Your task to perform on an android device: refresh tabs in the chrome app Image 0: 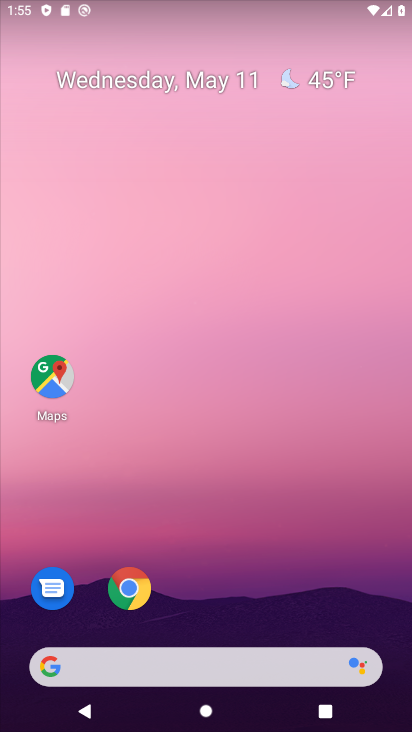
Step 0: click (116, 594)
Your task to perform on an android device: refresh tabs in the chrome app Image 1: 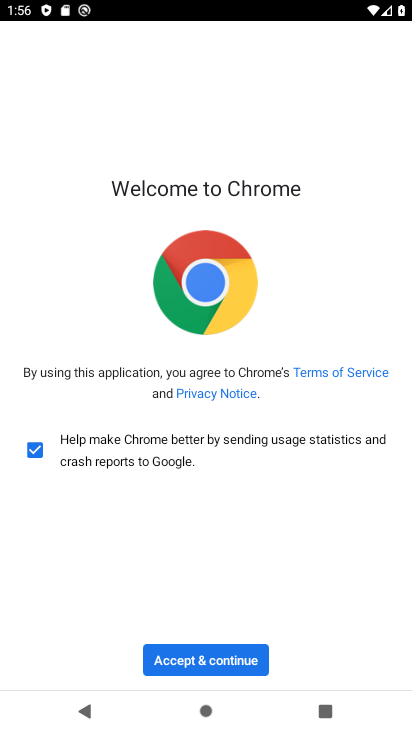
Step 1: click (233, 649)
Your task to perform on an android device: refresh tabs in the chrome app Image 2: 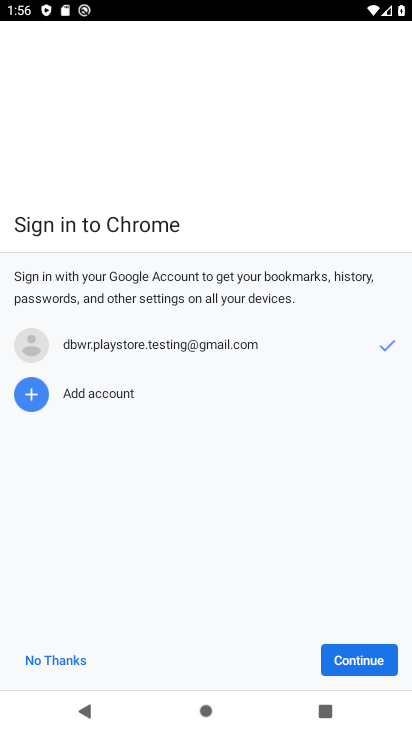
Step 2: click (344, 664)
Your task to perform on an android device: refresh tabs in the chrome app Image 3: 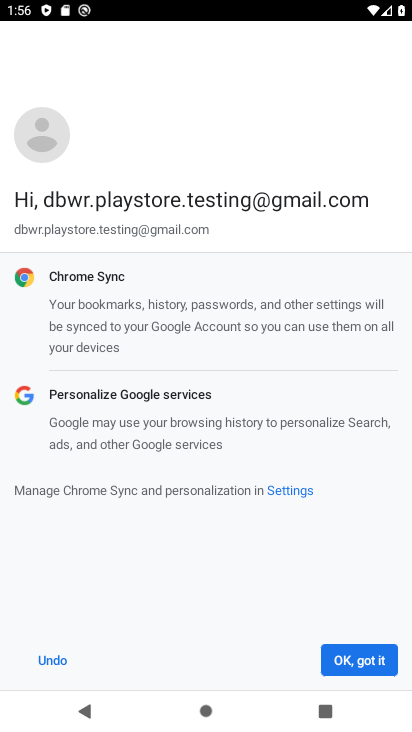
Step 3: click (374, 649)
Your task to perform on an android device: refresh tabs in the chrome app Image 4: 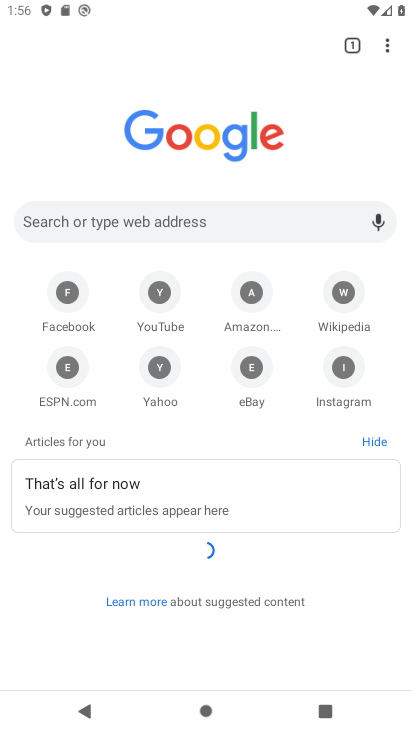
Step 4: click (387, 45)
Your task to perform on an android device: refresh tabs in the chrome app Image 5: 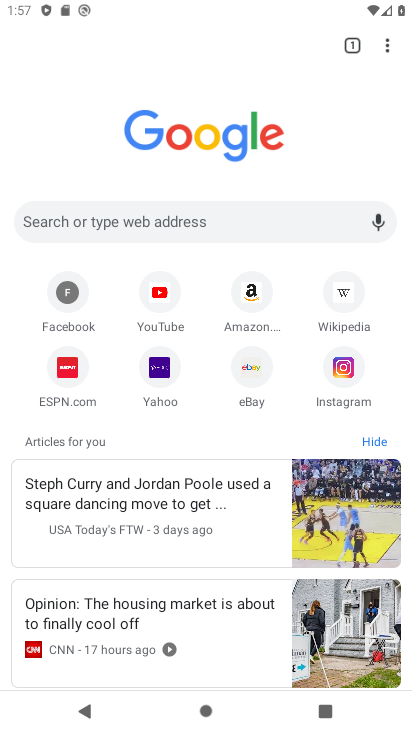
Step 5: task complete